Your task to perform on an android device: Search for Italian restaurants on Maps Image 0: 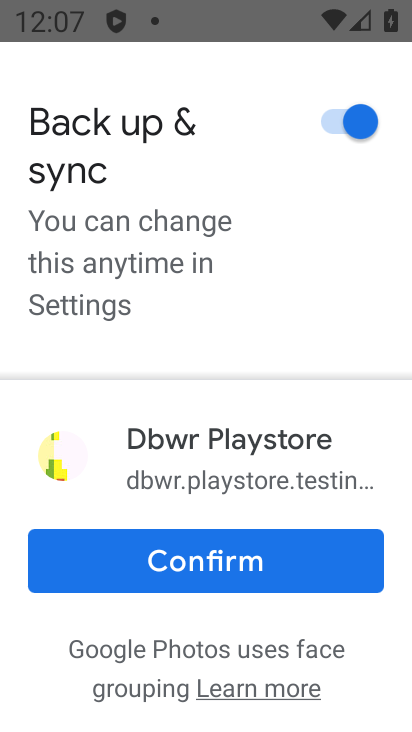
Step 0: press home button
Your task to perform on an android device: Search for Italian restaurants on Maps Image 1: 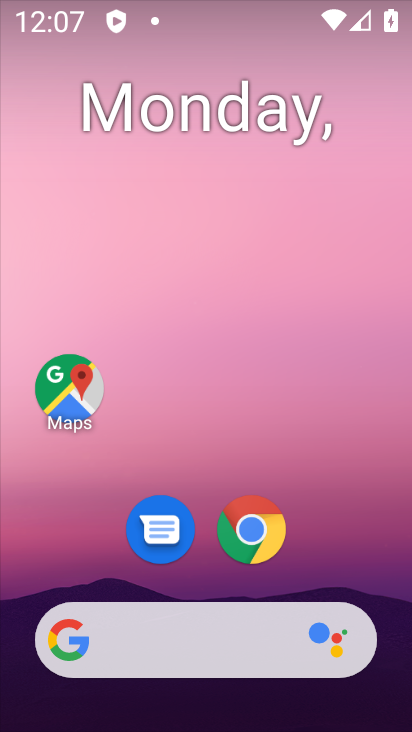
Step 1: click (61, 392)
Your task to perform on an android device: Search for Italian restaurants on Maps Image 2: 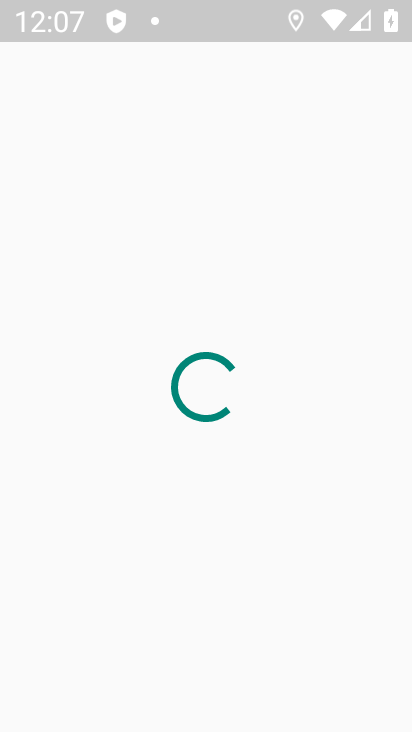
Step 2: click (199, 105)
Your task to perform on an android device: Search for Italian restaurants on Maps Image 3: 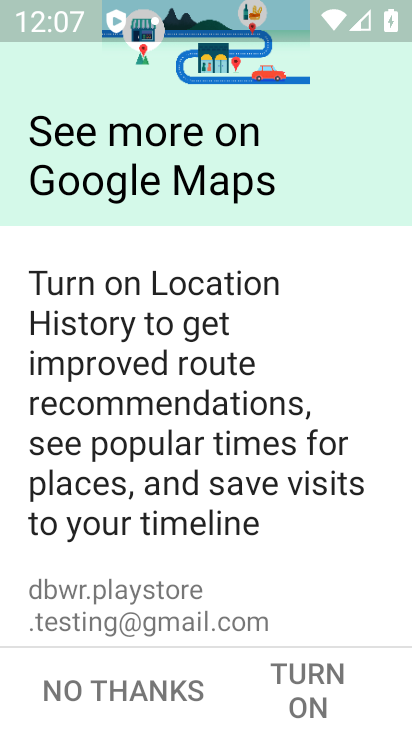
Step 3: click (323, 693)
Your task to perform on an android device: Search for Italian restaurants on Maps Image 4: 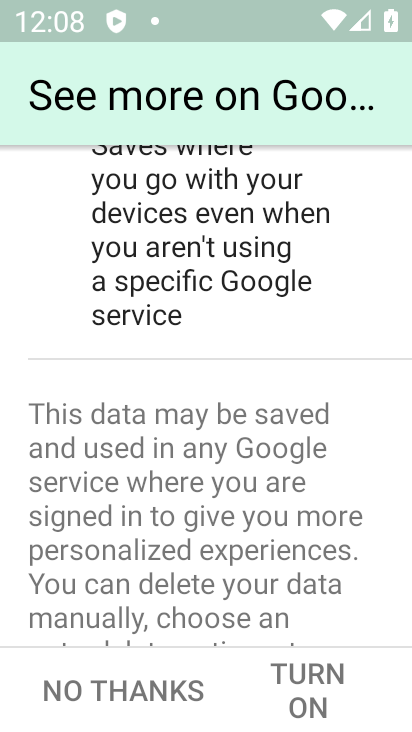
Step 4: click (323, 693)
Your task to perform on an android device: Search for Italian restaurants on Maps Image 5: 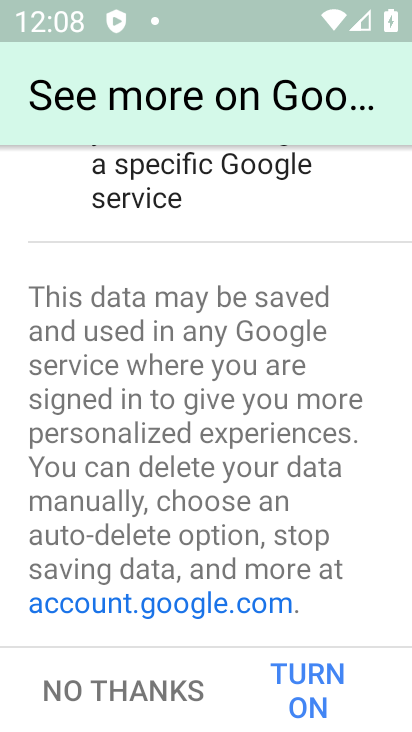
Step 5: click (323, 693)
Your task to perform on an android device: Search for Italian restaurants on Maps Image 6: 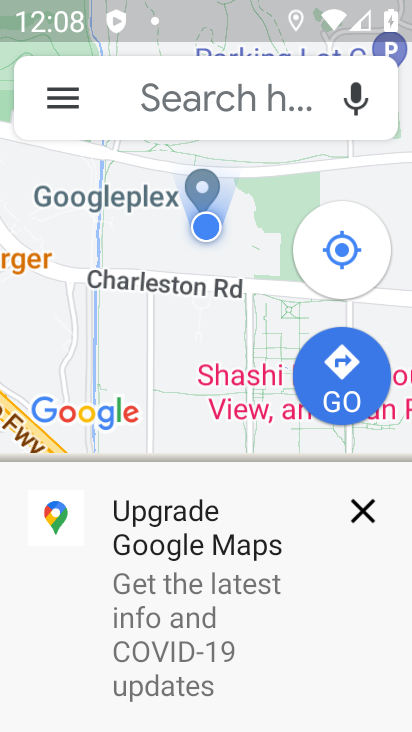
Step 6: click (197, 110)
Your task to perform on an android device: Search for Italian restaurants on Maps Image 7: 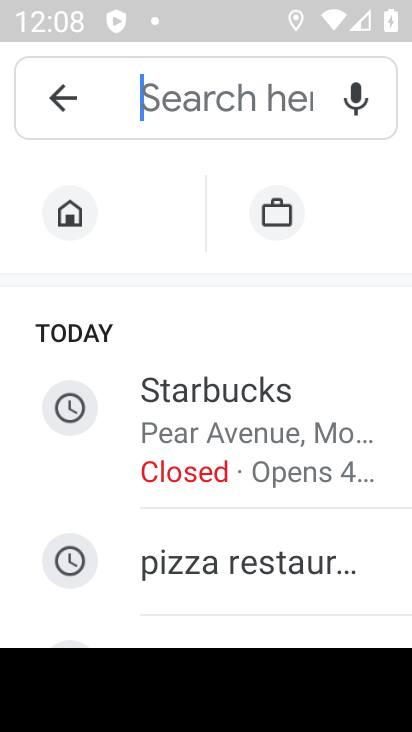
Step 7: type "italian restaurants"
Your task to perform on an android device: Search for Italian restaurants on Maps Image 8: 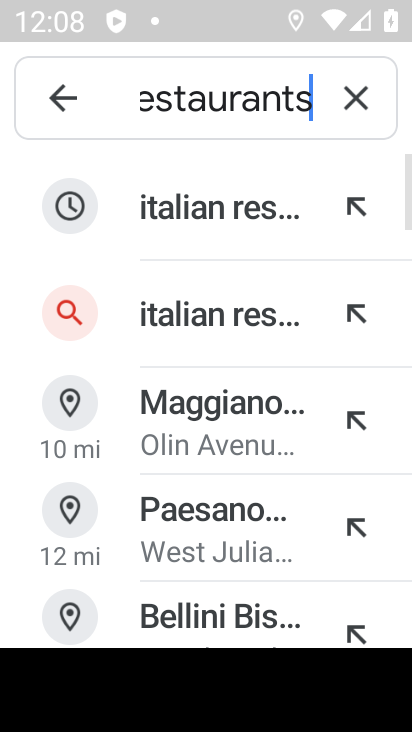
Step 8: click (240, 226)
Your task to perform on an android device: Search for Italian restaurants on Maps Image 9: 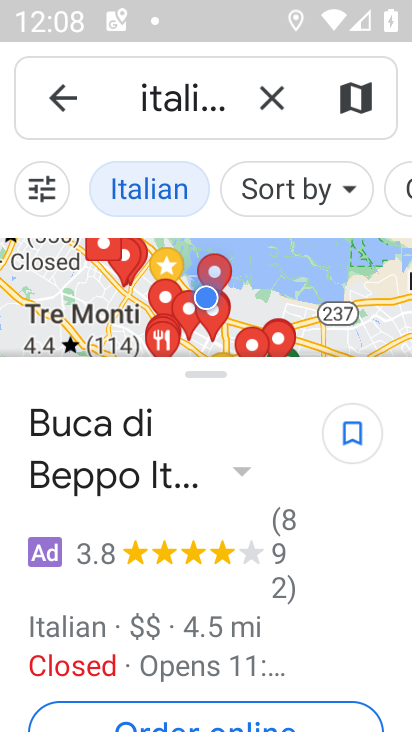
Step 9: task complete